Your task to perform on an android device: turn off javascript in the chrome app Image 0: 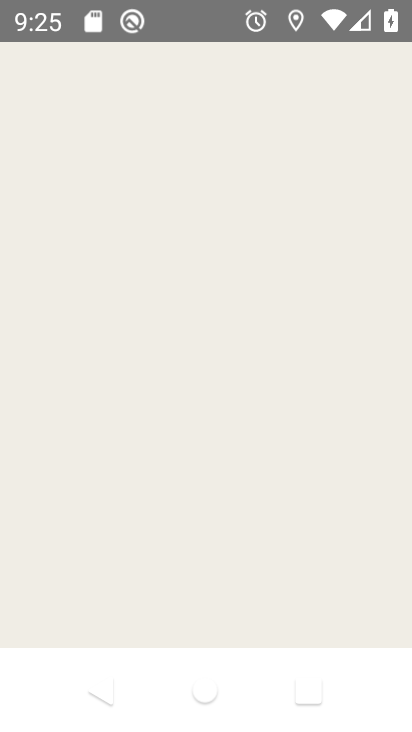
Step 0: press home button
Your task to perform on an android device: turn off javascript in the chrome app Image 1: 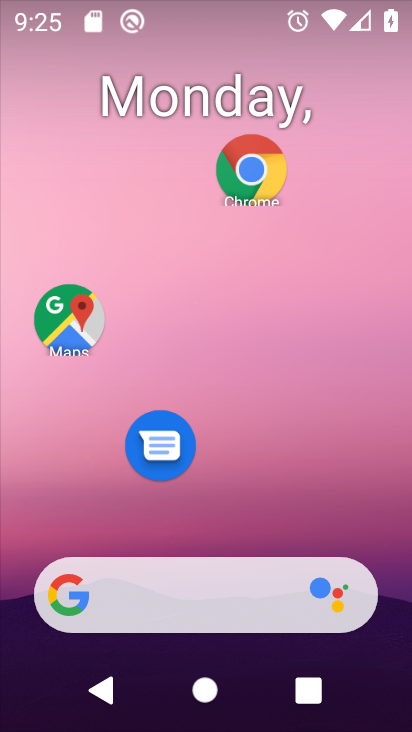
Step 1: click (250, 159)
Your task to perform on an android device: turn off javascript in the chrome app Image 2: 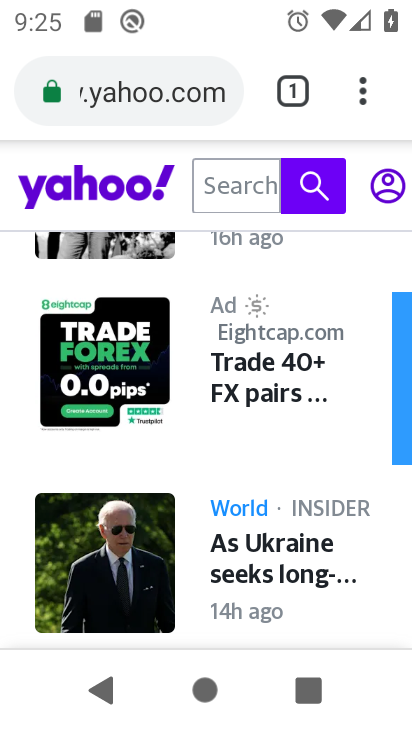
Step 2: click (360, 84)
Your task to perform on an android device: turn off javascript in the chrome app Image 3: 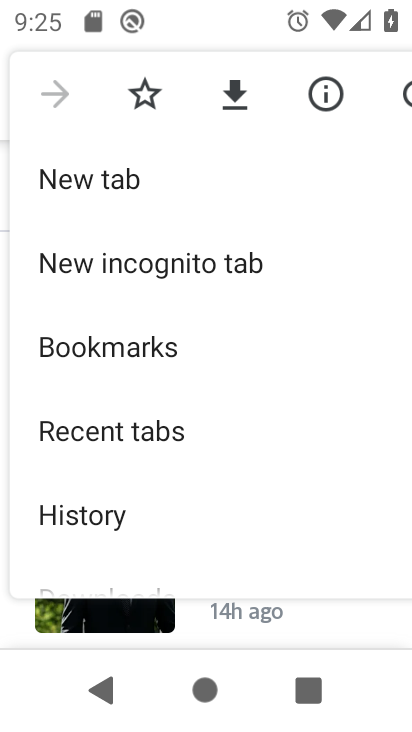
Step 3: drag from (229, 528) to (286, 80)
Your task to perform on an android device: turn off javascript in the chrome app Image 4: 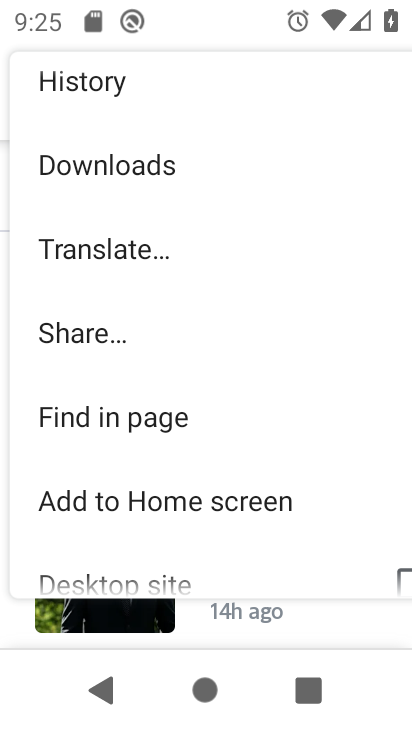
Step 4: drag from (246, 531) to (288, 161)
Your task to perform on an android device: turn off javascript in the chrome app Image 5: 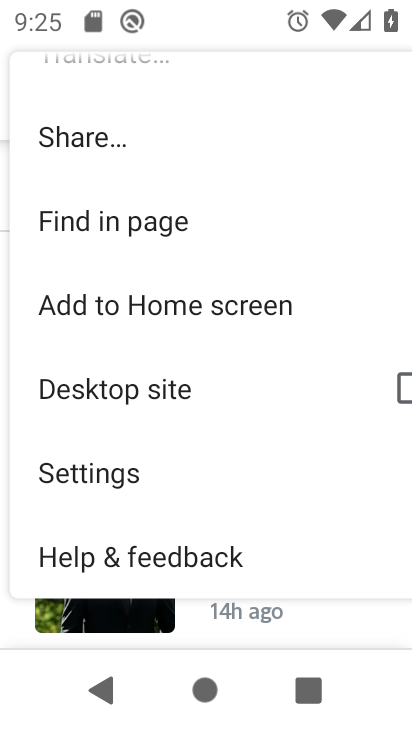
Step 5: click (152, 465)
Your task to perform on an android device: turn off javascript in the chrome app Image 6: 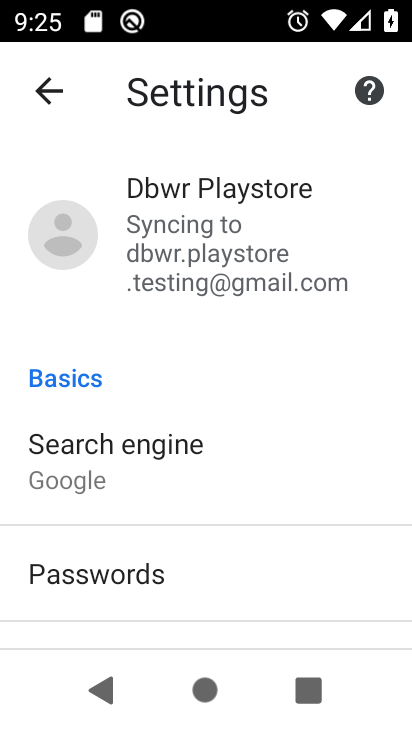
Step 6: drag from (228, 569) to (266, 166)
Your task to perform on an android device: turn off javascript in the chrome app Image 7: 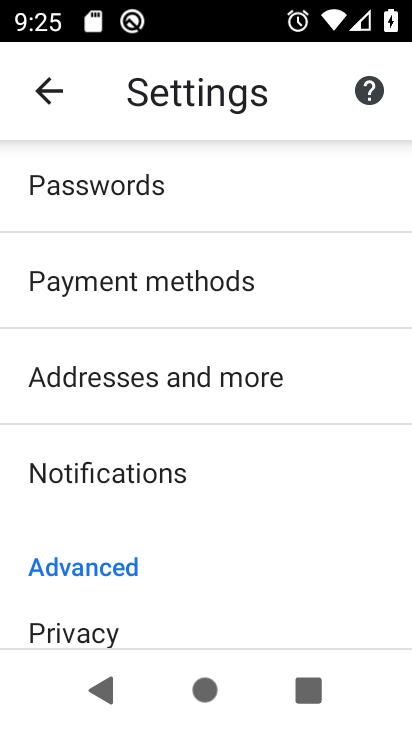
Step 7: drag from (223, 606) to (228, 174)
Your task to perform on an android device: turn off javascript in the chrome app Image 8: 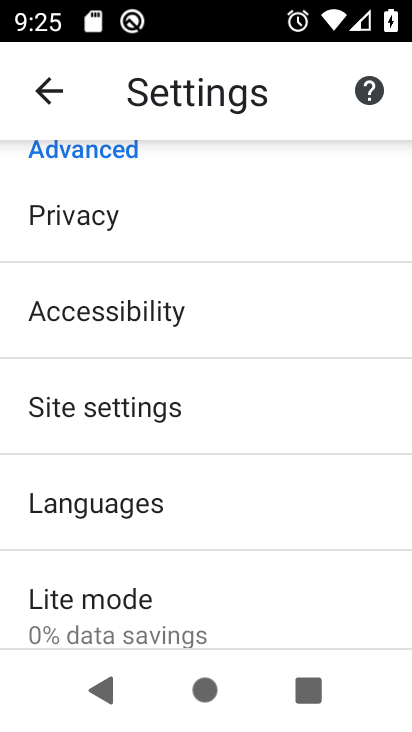
Step 8: click (199, 406)
Your task to perform on an android device: turn off javascript in the chrome app Image 9: 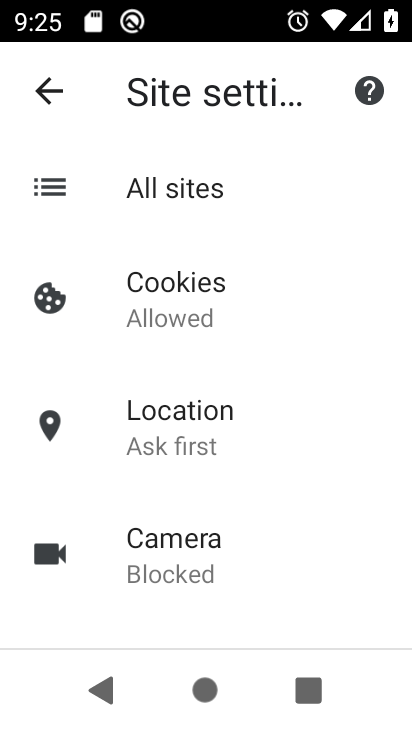
Step 9: drag from (253, 568) to (306, 161)
Your task to perform on an android device: turn off javascript in the chrome app Image 10: 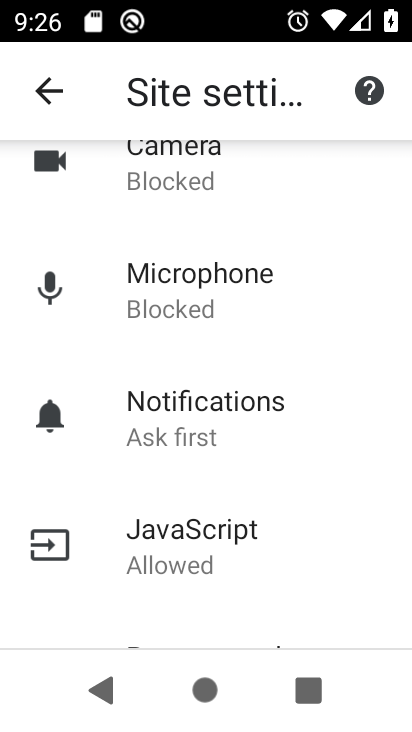
Step 10: click (226, 554)
Your task to perform on an android device: turn off javascript in the chrome app Image 11: 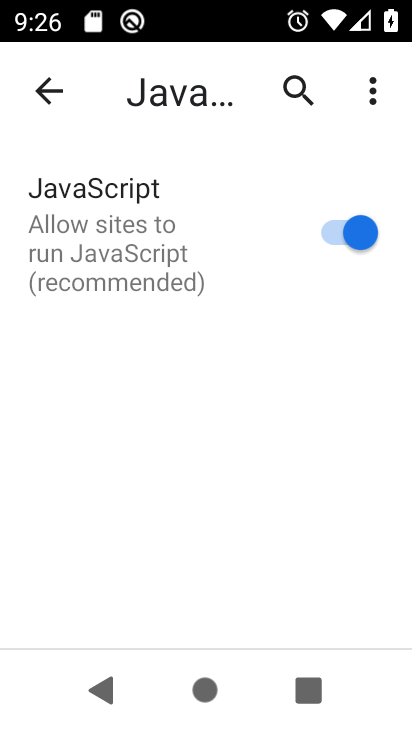
Step 11: click (339, 221)
Your task to perform on an android device: turn off javascript in the chrome app Image 12: 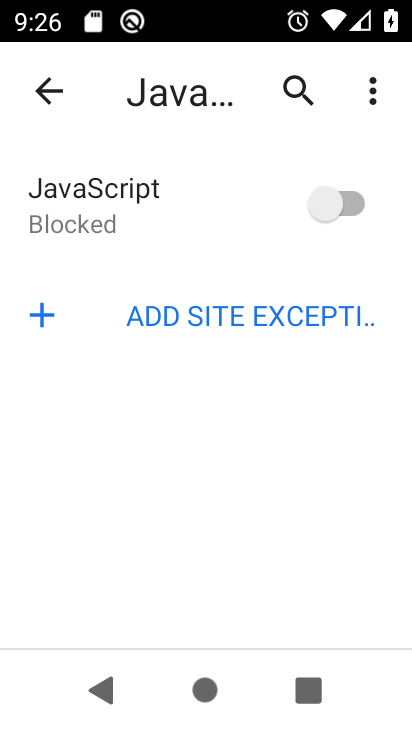
Step 12: task complete